Your task to perform on an android device: Show me the alarms in the clock app Image 0: 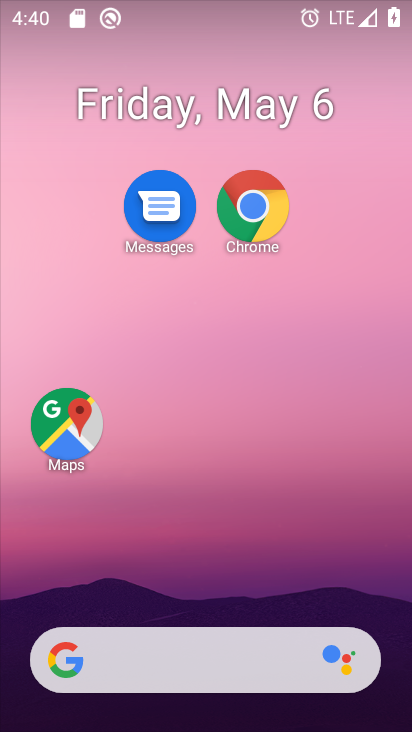
Step 0: drag from (160, 628) to (156, 299)
Your task to perform on an android device: Show me the alarms in the clock app Image 1: 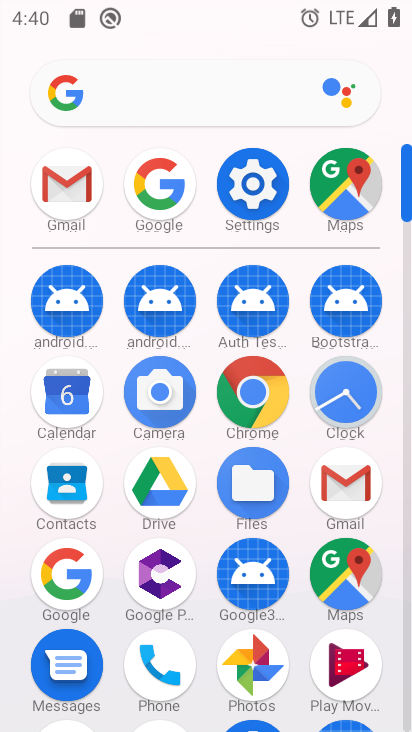
Step 1: click (343, 406)
Your task to perform on an android device: Show me the alarms in the clock app Image 2: 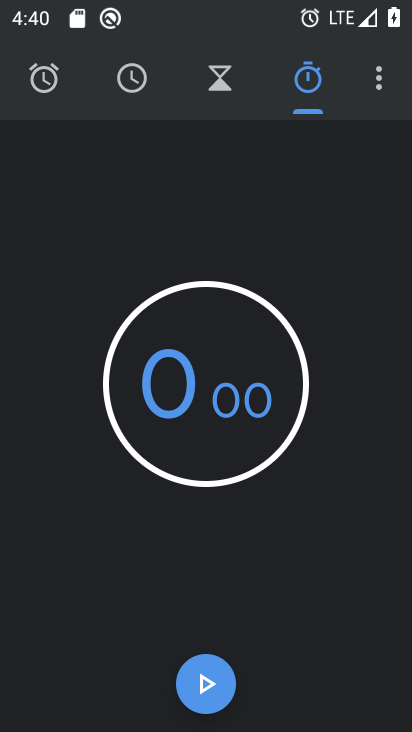
Step 2: click (50, 83)
Your task to perform on an android device: Show me the alarms in the clock app Image 3: 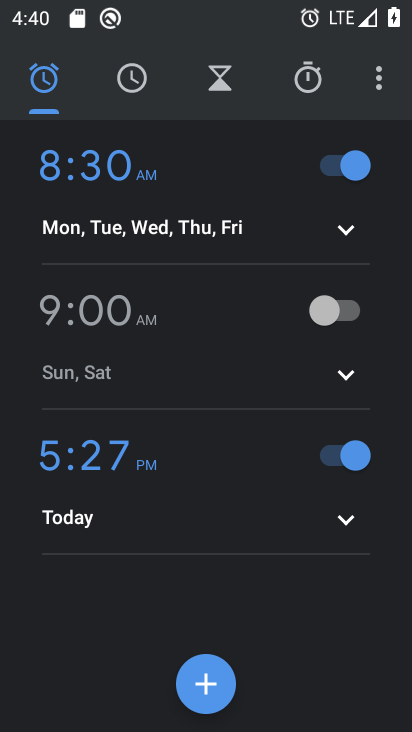
Step 3: drag from (160, 555) to (141, 199)
Your task to perform on an android device: Show me the alarms in the clock app Image 4: 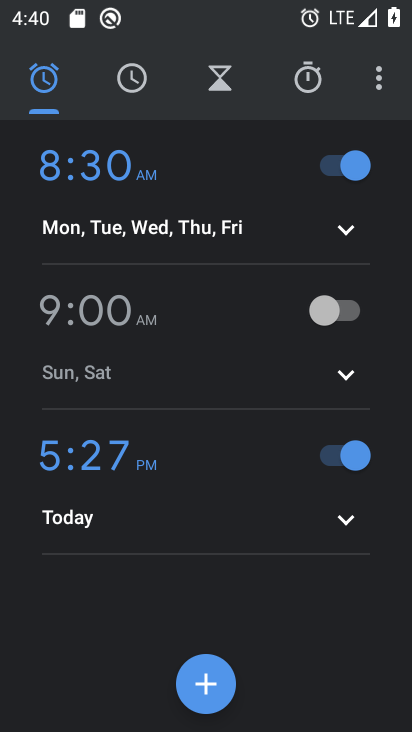
Step 4: click (329, 163)
Your task to perform on an android device: Show me the alarms in the clock app Image 5: 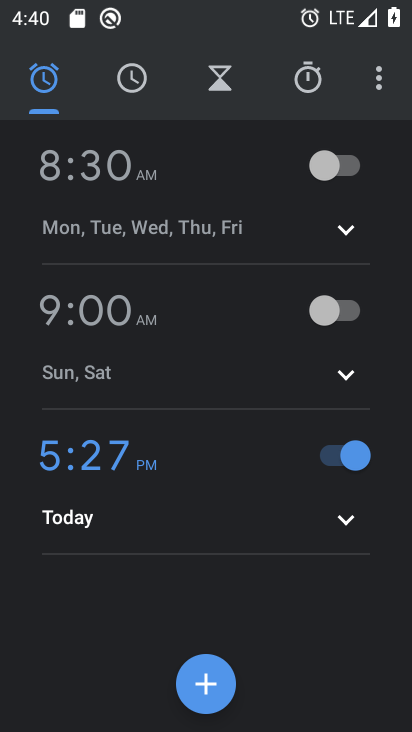
Step 5: task complete